Your task to perform on an android device: turn notification dots on Image 0: 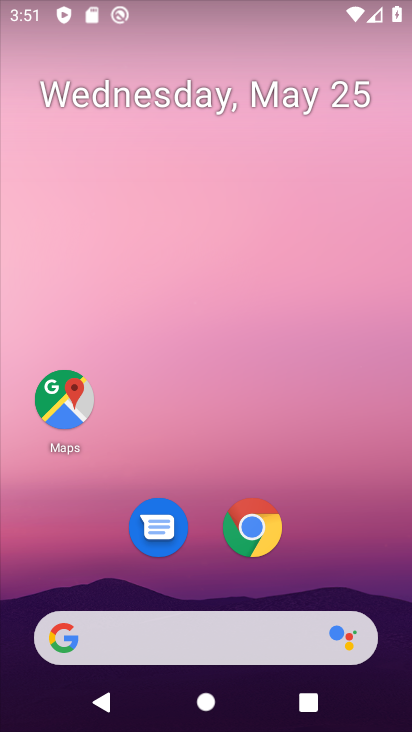
Step 0: drag from (79, 589) to (178, 159)
Your task to perform on an android device: turn notification dots on Image 1: 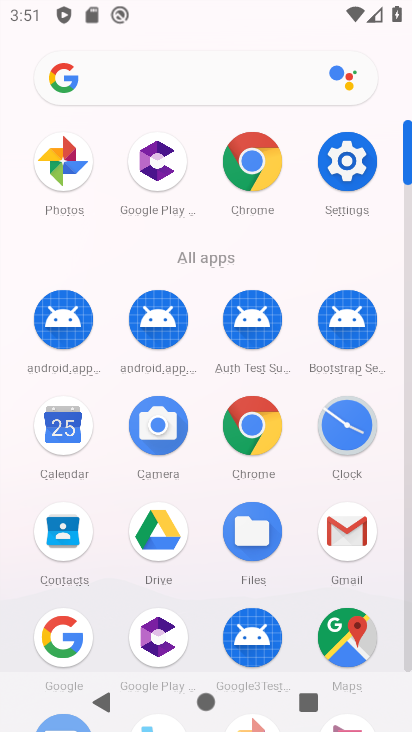
Step 1: drag from (181, 676) to (253, 418)
Your task to perform on an android device: turn notification dots on Image 2: 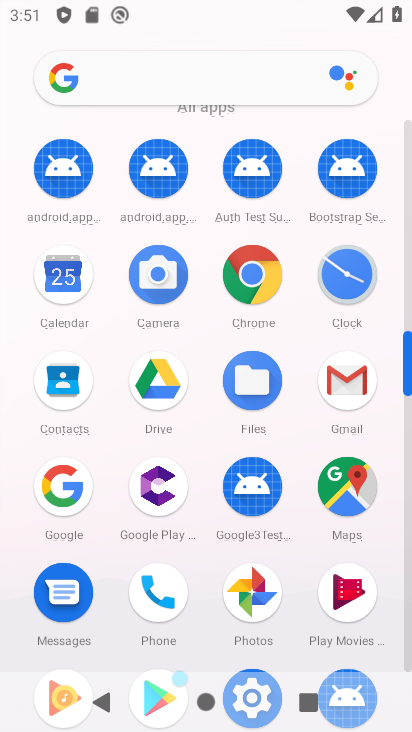
Step 2: click (265, 687)
Your task to perform on an android device: turn notification dots on Image 3: 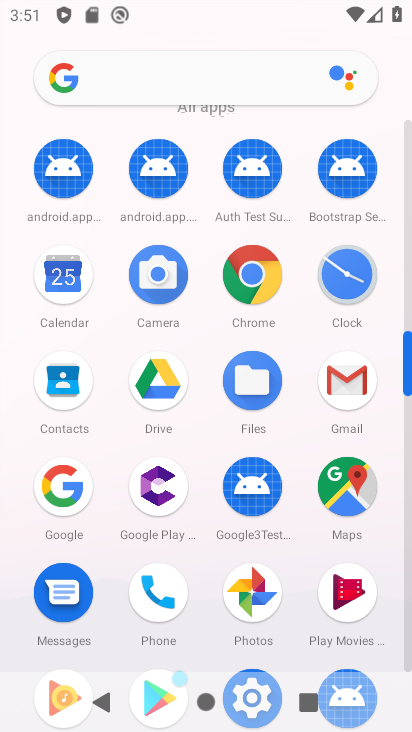
Step 3: click (256, 696)
Your task to perform on an android device: turn notification dots on Image 4: 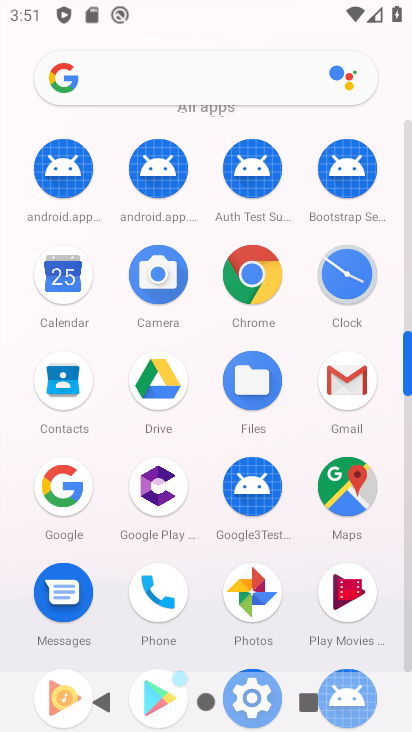
Step 4: click (249, 684)
Your task to perform on an android device: turn notification dots on Image 5: 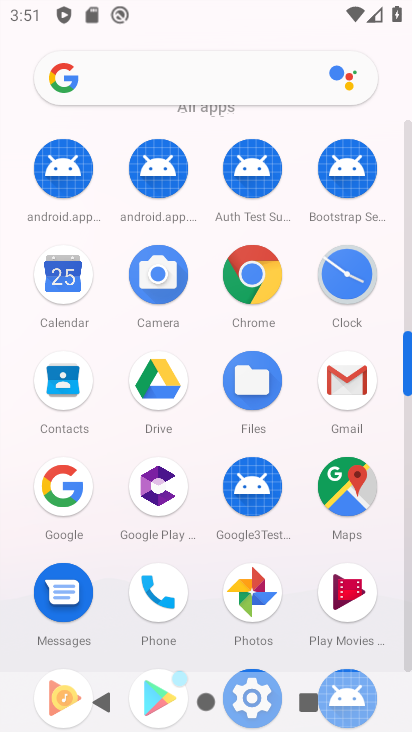
Step 5: drag from (282, 665) to (332, 385)
Your task to perform on an android device: turn notification dots on Image 6: 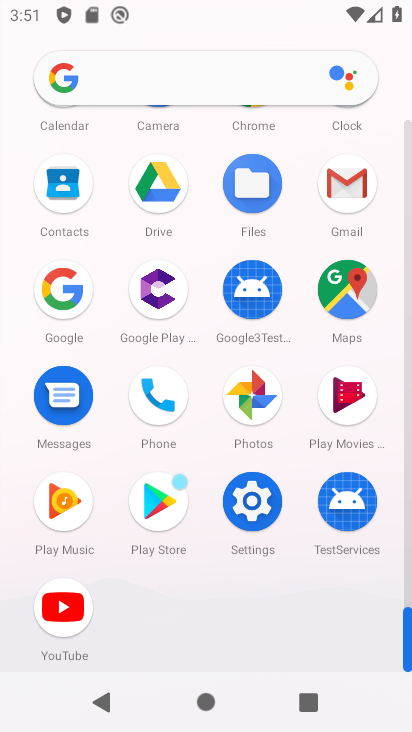
Step 6: click (250, 494)
Your task to perform on an android device: turn notification dots on Image 7: 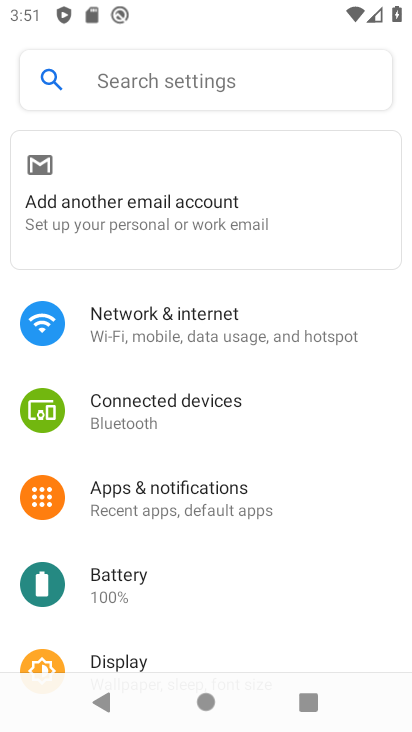
Step 7: click (232, 493)
Your task to perform on an android device: turn notification dots on Image 8: 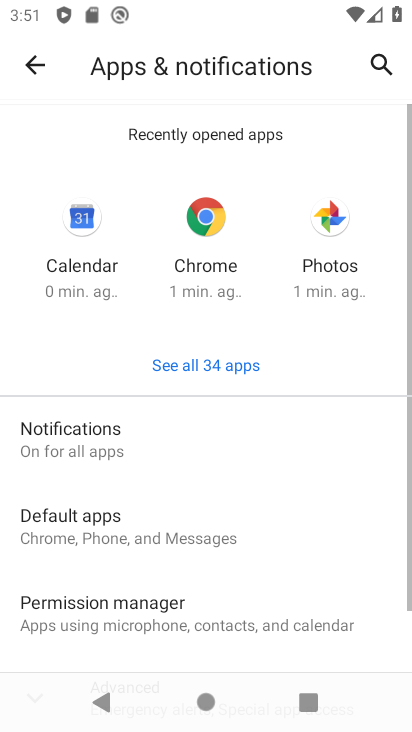
Step 8: click (89, 442)
Your task to perform on an android device: turn notification dots on Image 9: 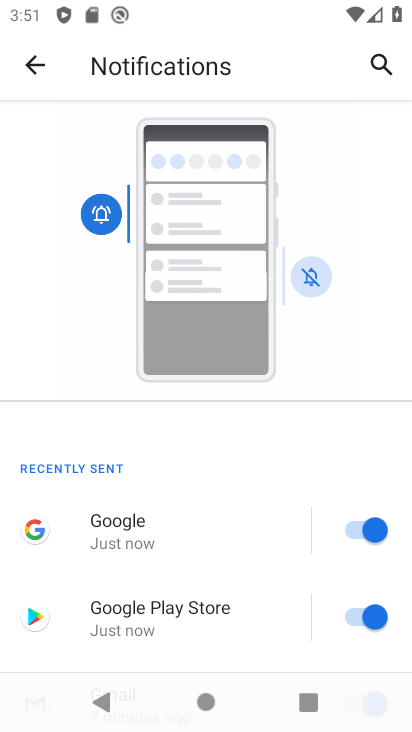
Step 9: drag from (162, 546) to (282, 285)
Your task to perform on an android device: turn notification dots on Image 10: 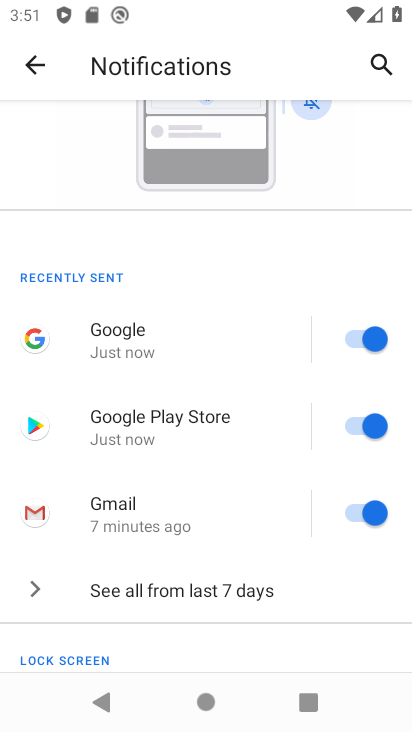
Step 10: drag from (207, 639) to (285, 299)
Your task to perform on an android device: turn notification dots on Image 11: 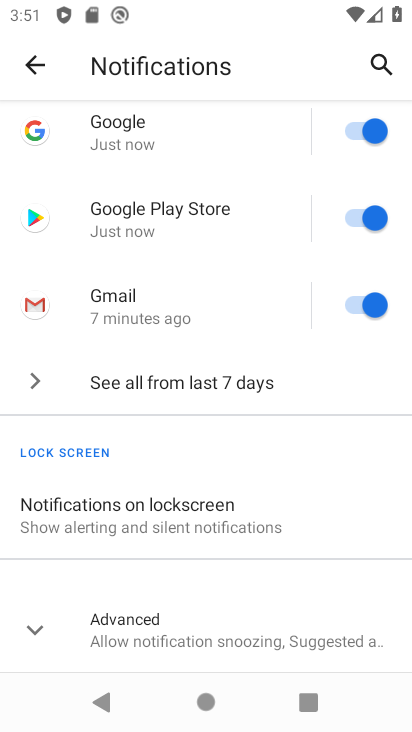
Step 11: click (153, 637)
Your task to perform on an android device: turn notification dots on Image 12: 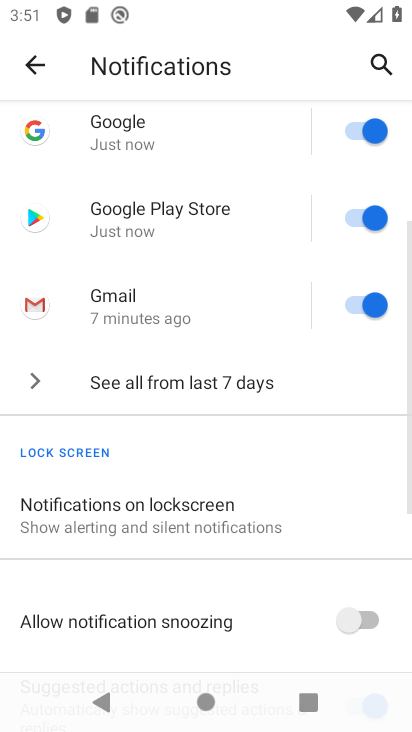
Step 12: task complete